Your task to perform on an android device: check google app version Image 0: 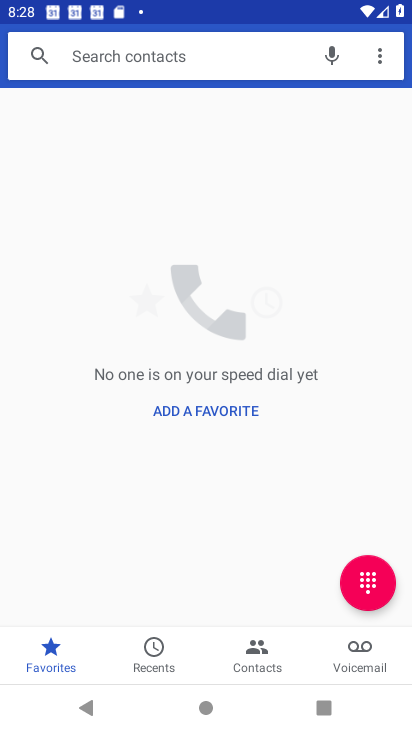
Step 0: press home button
Your task to perform on an android device: check google app version Image 1: 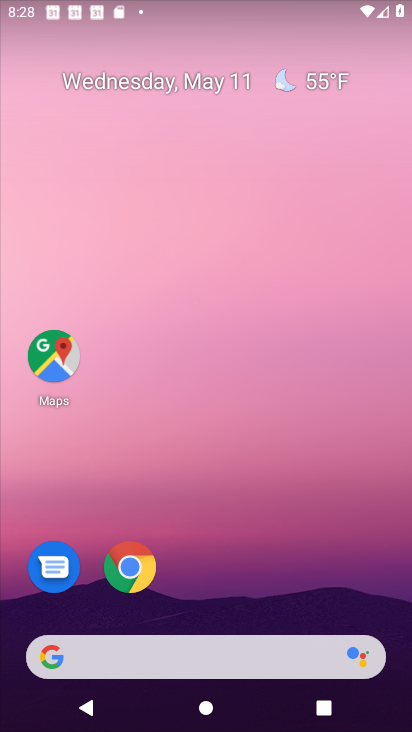
Step 1: drag from (201, 651) to (166, 201)
Your task to perform on an android device: check google app version Image 2: 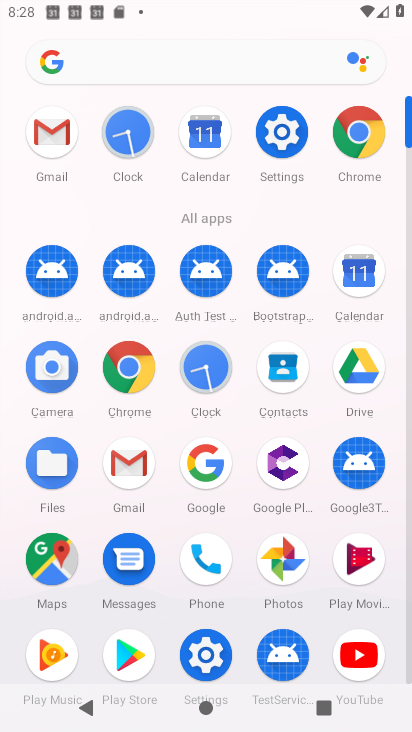
Step 2: click (123, 369)
Your task to perform on an android device: check google app version Image 3: 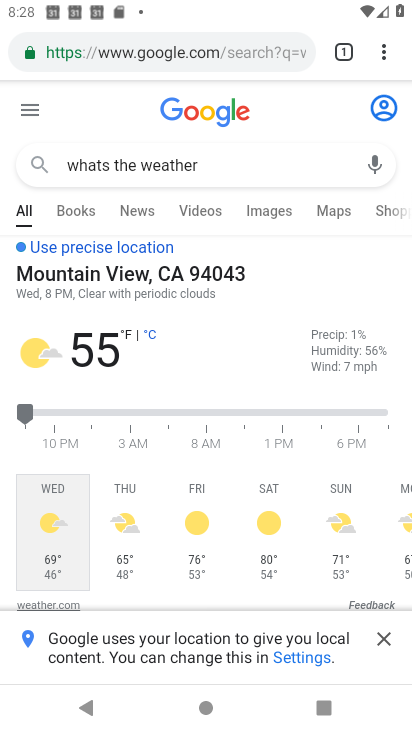
Step 3: click (378, 48)
Your task to perform on an android device: check google app version Image 4: 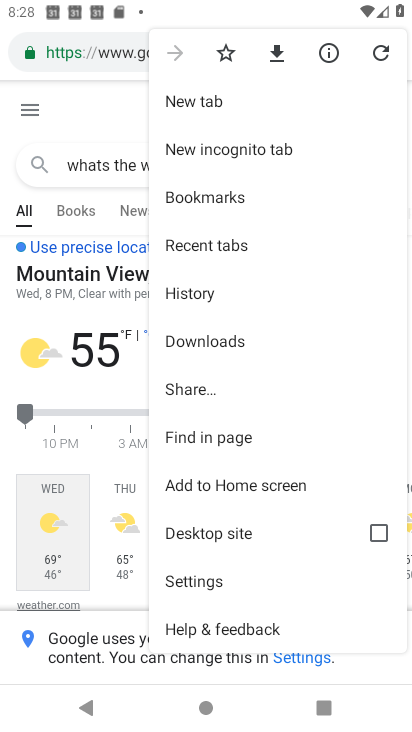
Step 4: click (224, 576)
Your task to perform on an android device: check google app version Image 5: 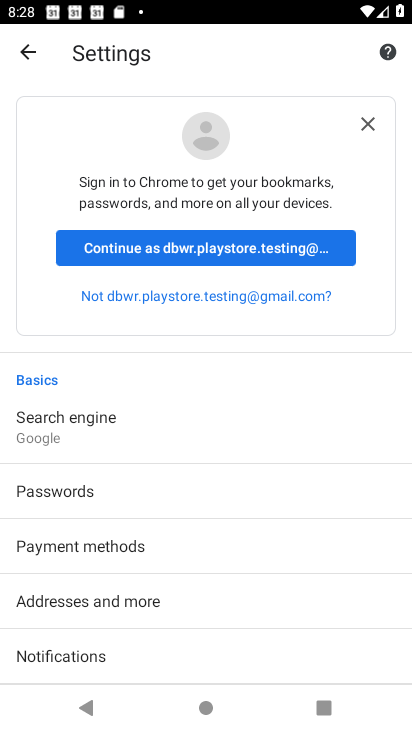
Step 5: drag from (249, 601) to (233, 196)
Your task to perform on an android device: check google app version Image 6: 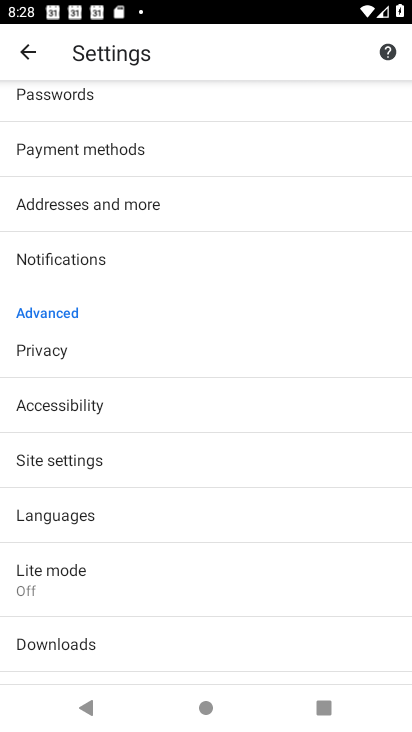
Step 6: press back button
Your task to perform on an android device: check google app version Image 7: 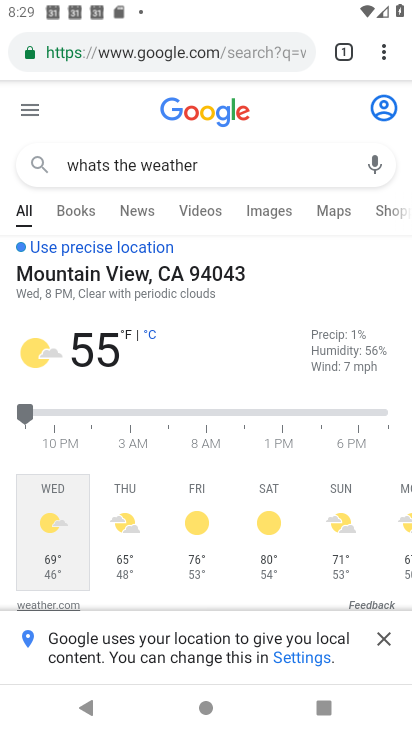
Step 7: click (375, 46)
Your task to perform on an android device: check google app version Image 8: 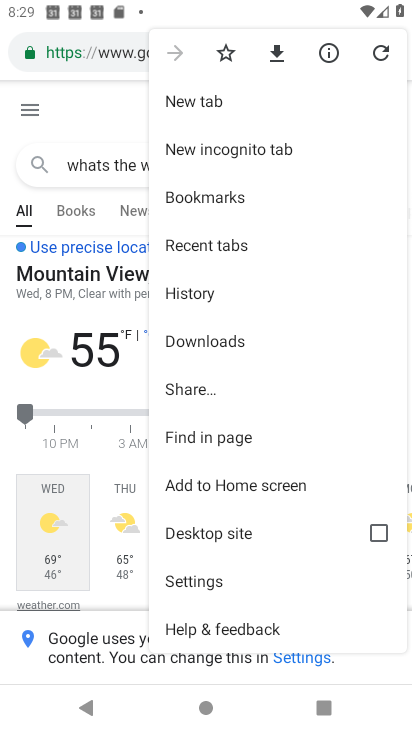
Step 8: drag from (254, 524) to (291, 217)
Your task to perform on an android device: check google app version Image 9: 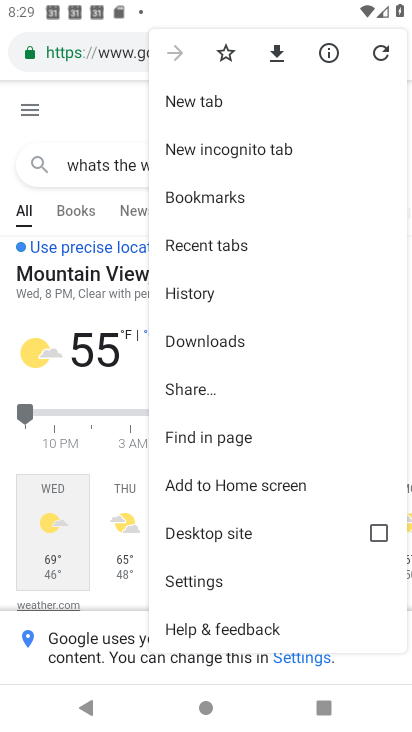
Step 9: click (225, 628)
Your task to perform on an android device: check google app version Image 10: 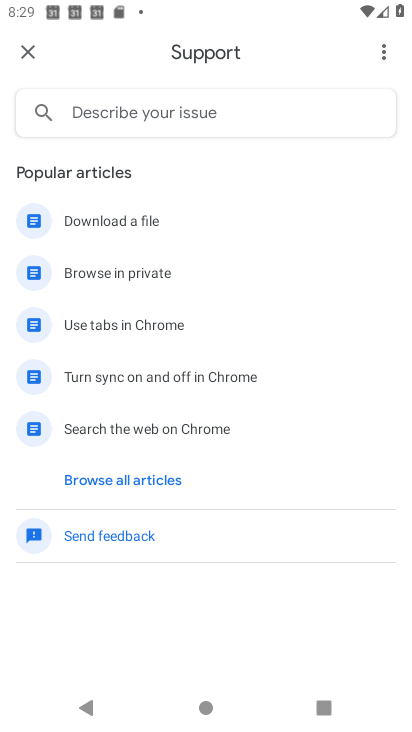
Step 10: click (387, 45)
Your task to perform on an android device: check google app version Image 11: 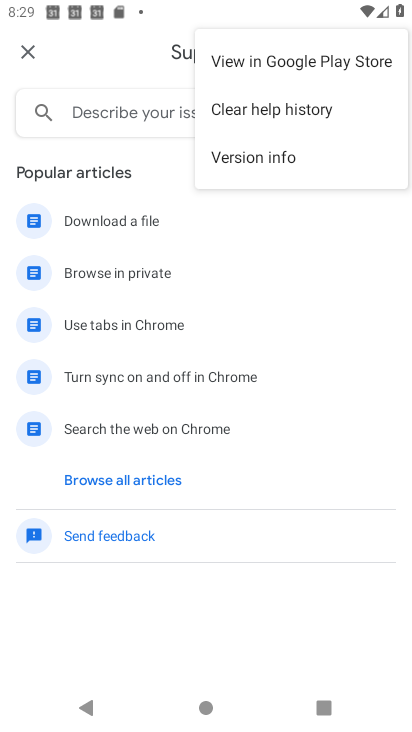
Step 11: click (308, 163)
Your task to perform on an android device: check google app version Image 12: 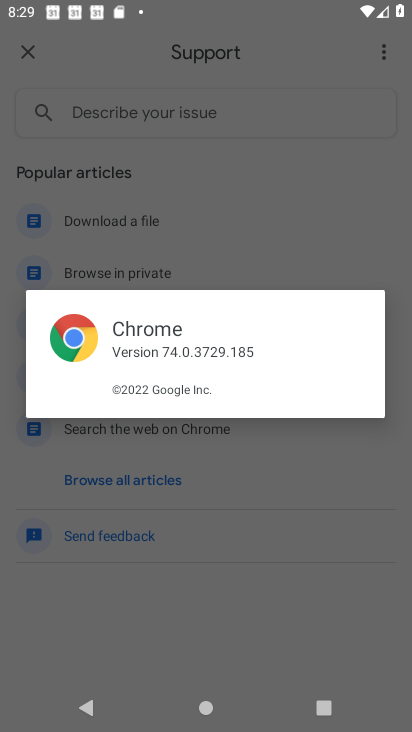
Step 12: task complete